Your task to perform on an android device: Show me recent news Image 0: 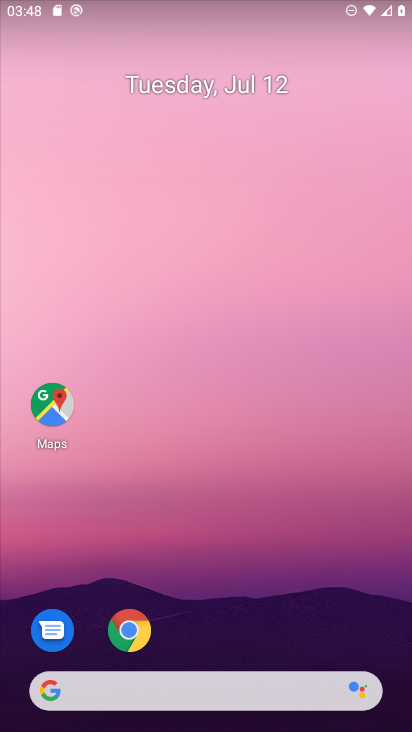
Step 0: drag from (11, 260) to (396, 243)
Your task to perform on an android device: Show me recent news Image 1: 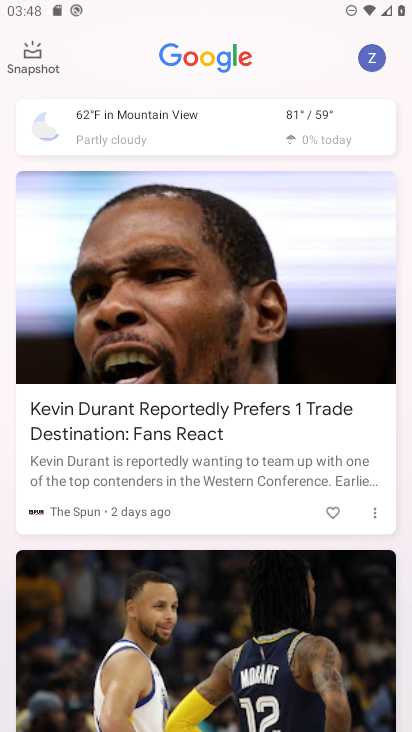
Step 1: task complete